Your task to perform on an android device: open app "Facebook Lite" (install if not already installed) Image 0: 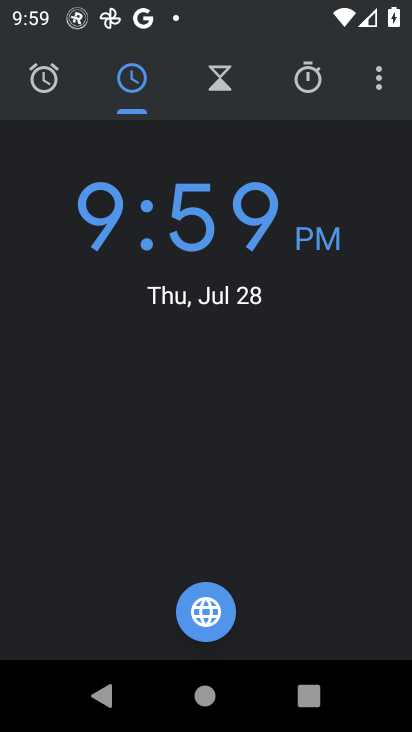
Step 0: press back button
Your task to perform on an android device: open app "Facebook Lite" (install if not already installed) Image 1: 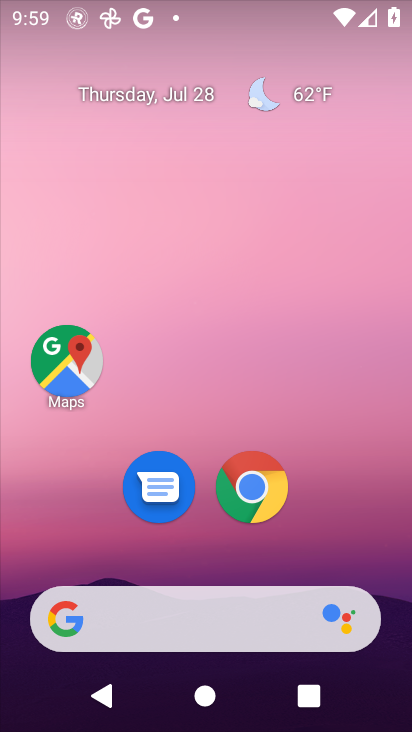
Step 1: drag from (270, 661) to (215, 330)
Your task to perform on an android device: open app "Facebook Lite" (install if not already installed) Image 2: 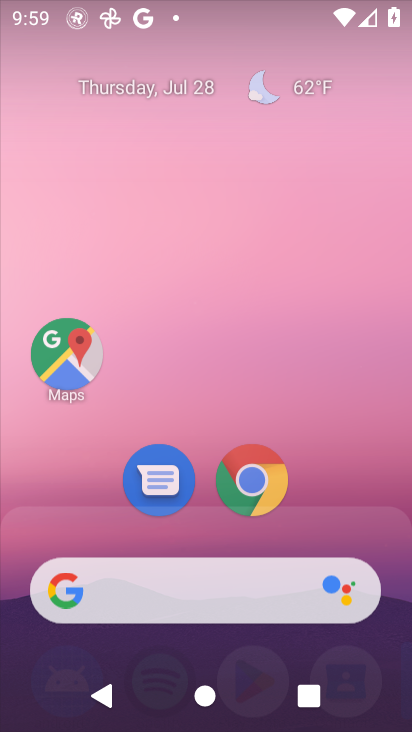
Step 2: drag from (306, 618) to (306, 350)
Your task to perform on an android device: open app "Facebook Lite" (install if not already installed) Image 3: 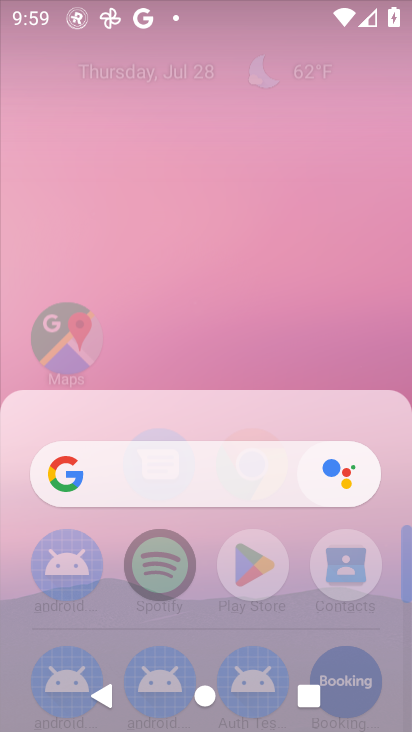
Step 3: drag from (329, 659) to (205, 246)
Your task to perform on an android device: open app "Facebook Lite" (install if not already installed) Image 4: 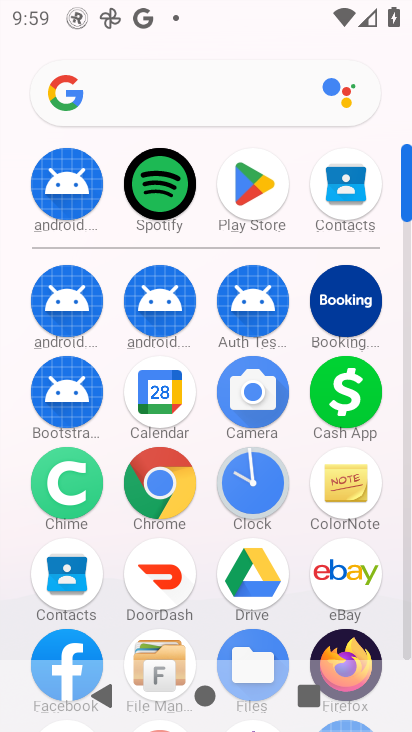
Step 4: drag from (255, 523) to (216, 284)
Your task to perform on an android device: open app "Facebook Lite" (install if not already installed) Image 5: 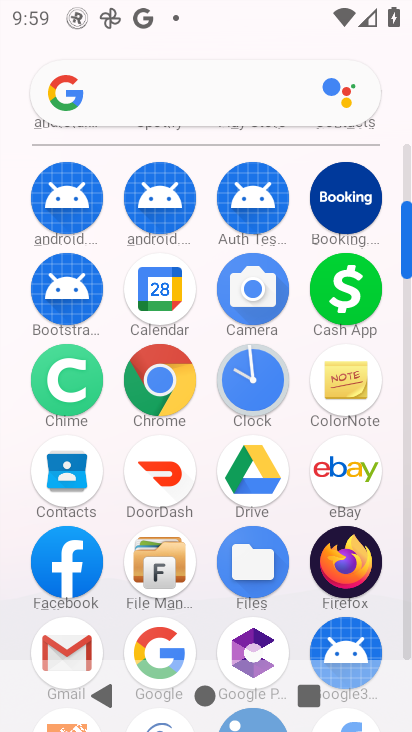
Step 5: drag from (208, 282) to (208, 576)
Your task to perform on an android device: open app "Facebook Lite" (install if not already installed) Image 6: 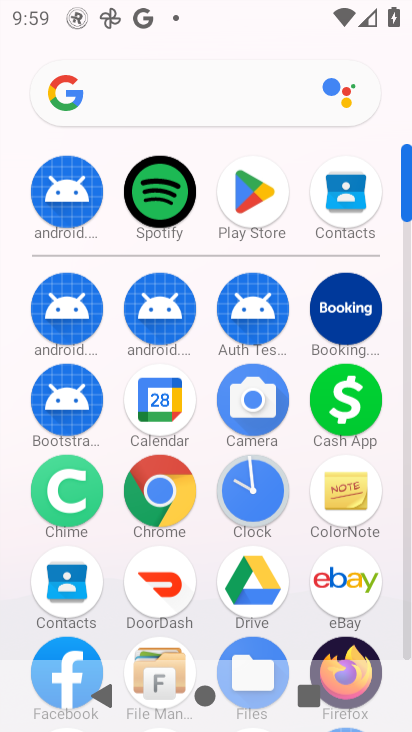
Step 6: drag from (200, 434) to (200, 612)
Your task to perform on an android device: open app "Facebook Lite" (install if not already installed) Image 7: 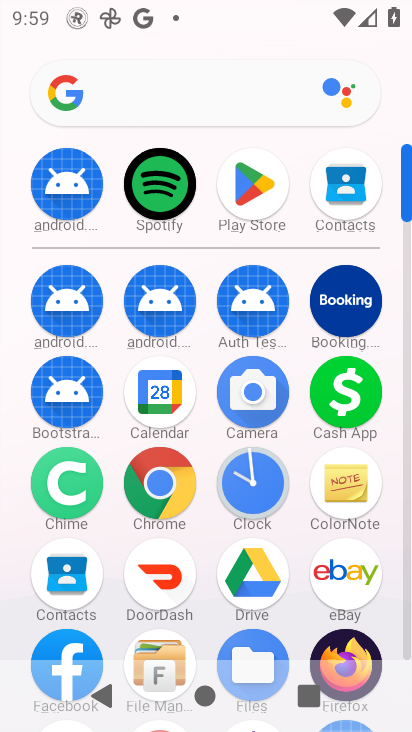
Step 7: click (247, 188)
Your task to perform on an android device: open app "Facebook Lite" (install if not already installed) Image 8: 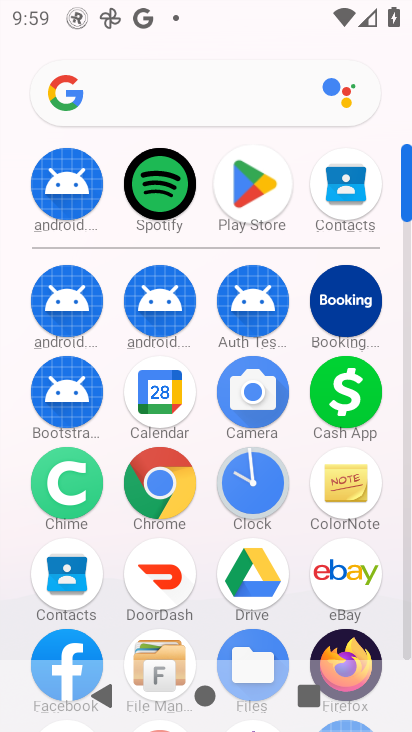
Step 8: click (247, 188)
Your task to perform on an android device: open app "Facebook Lite" (install if not already installed) Image 9: 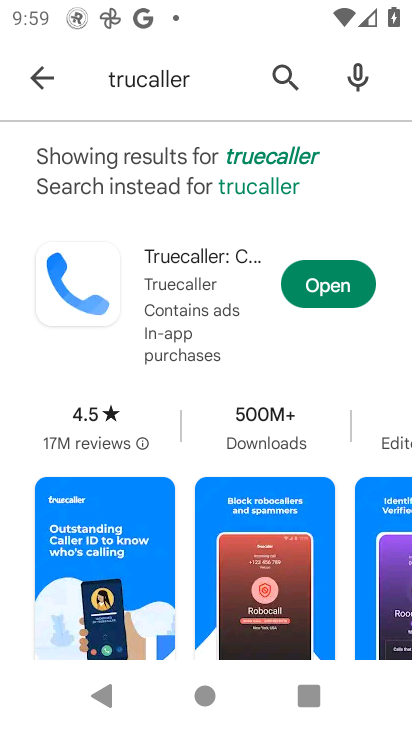
Step 9: click (33, 84)
Your task to perform on an android device: open app "Facebook Lite" (install if not already installed) Image 10: 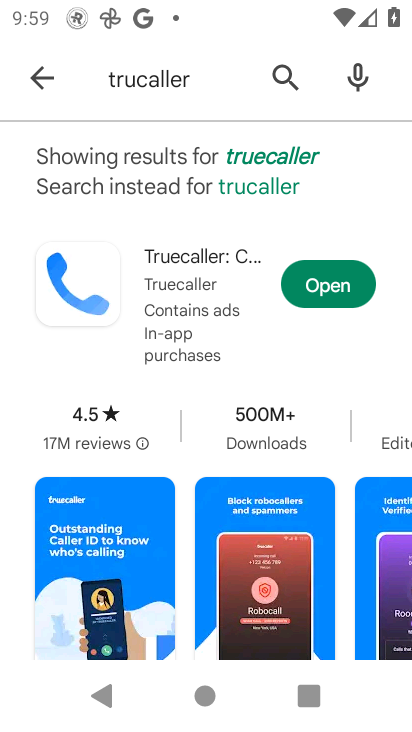
Step 10: click (33, 84)
Your task to perform on an android device: open app "Facebook Lite" (install if not already installed) Image 11: 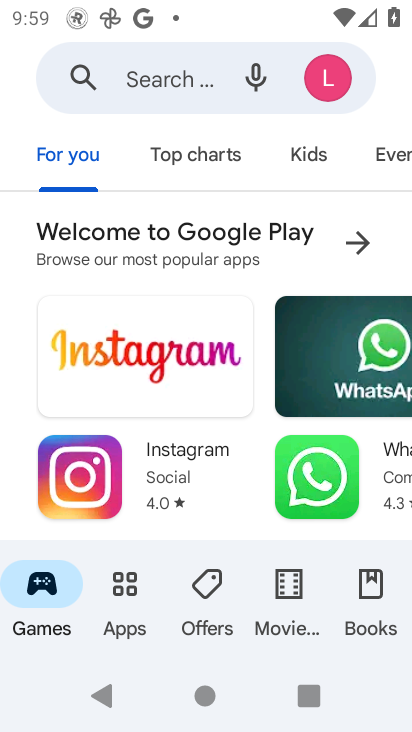
Step 11: click (145, 69)
Your task to perform on an android device: open app "Facebook Lite" (install if not already installed) Image 12: 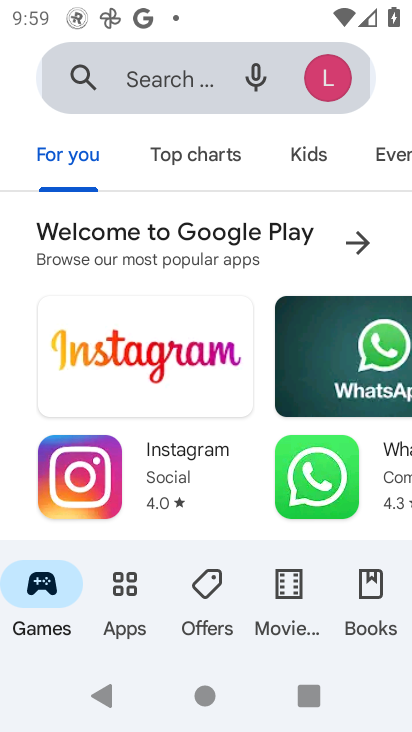
Step 12: click (145, 69)
Your task to perform on an android device: open app "Facebook Lite" (install if not already installed) Image 13: 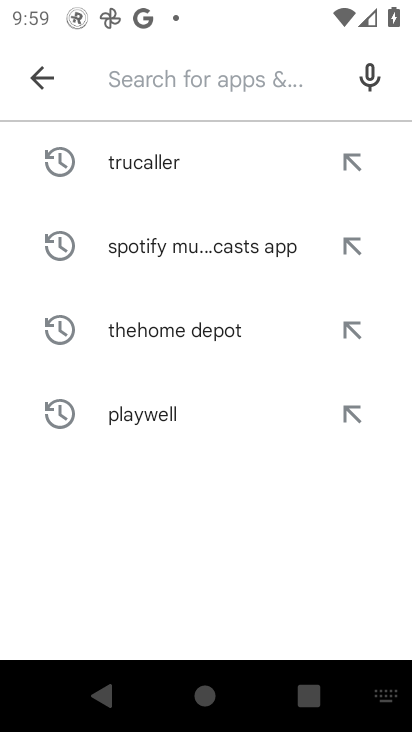
Step 13: type "facebook lite"
Your task to perform on an android device: open app "Facebook Lite" (install if not already installed) Image 14: 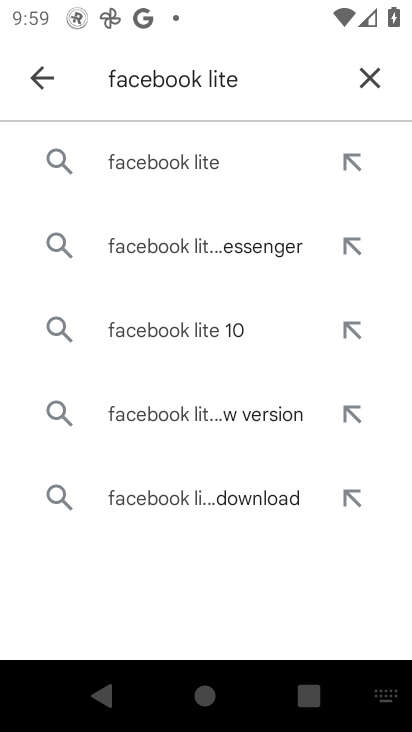
Step 14: click (185, 165)
Your task to perform on an android device: open app "Facebook Lite" (install if not already installed) Image 15: 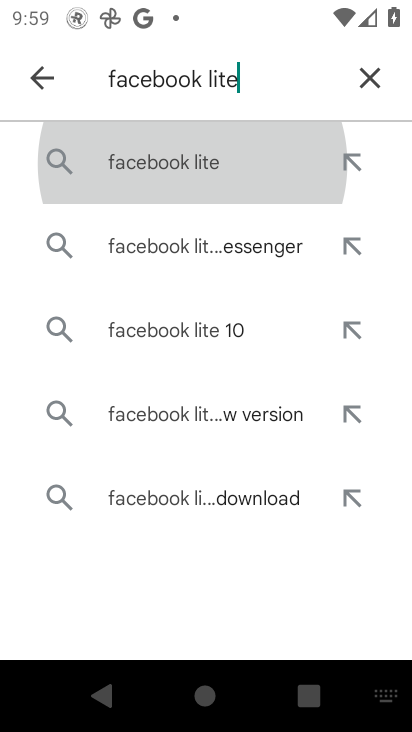
Step 15: click (185, 166)
Your task to perform on an android device: open app "Facebook Lite" (install if not already installed) Image 16: 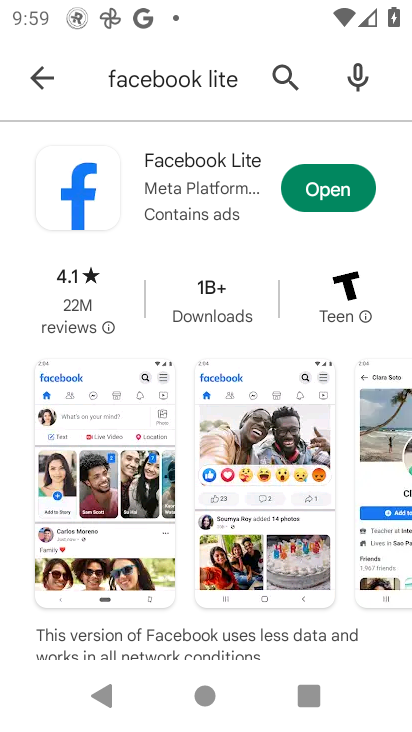
Step 16: click (327, 185)
Your task to perform on an android device: open app "Facebook Lite" (install if not already installed) Image 17: 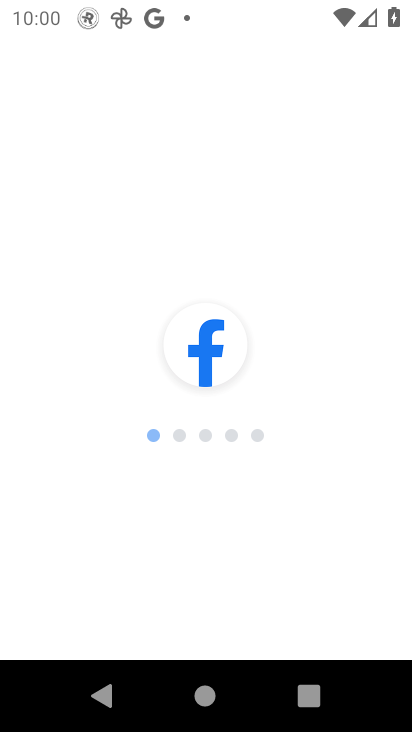
Step 17: click (250, 427)
Your task to perform on an android device: open app "Facebook Lite" (install if not already installed) Image 18: 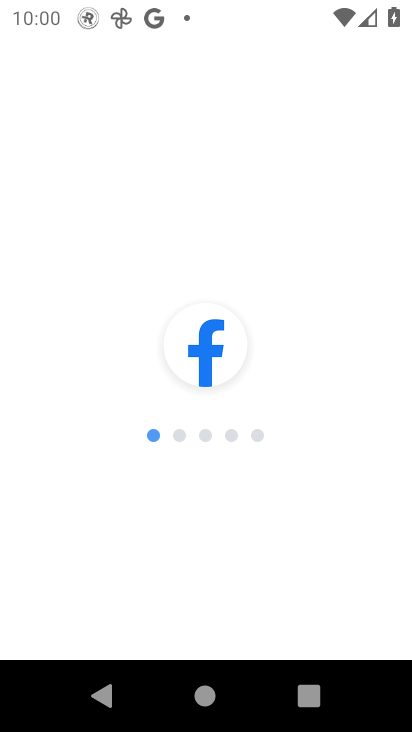
Step 18: click (168, 432)
Your task to perform on an android device: open app "Facebook Lite" (install if not already installed) Image 19: 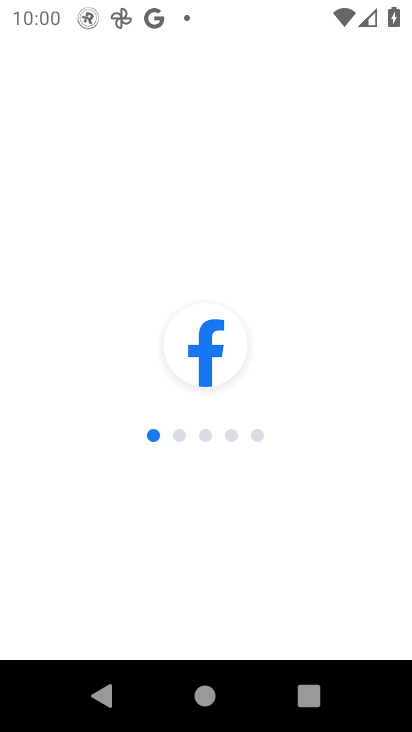
Step 19: click (173, 430)
Your task to perform on an android device: open app "Facebook Lite" (install if not already installed) Image 20: 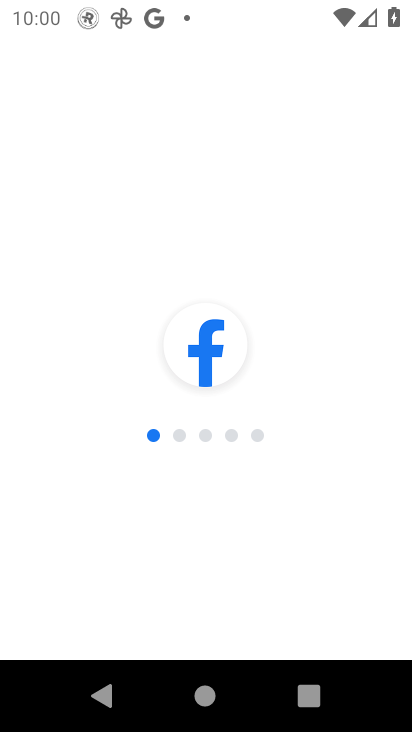
Step 20: click (214, 430)
Your task to perform on an android device: open app "Facebook Lite" (install if not already installed) Image 21: 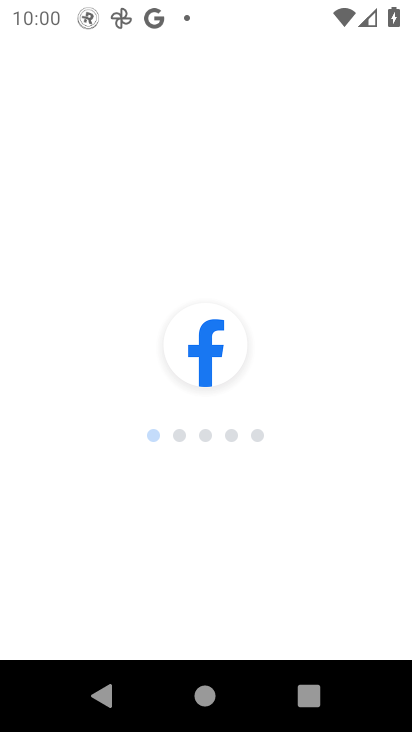
Step 21: task complete